Your task to perform on an android device: Check the news Image 0: 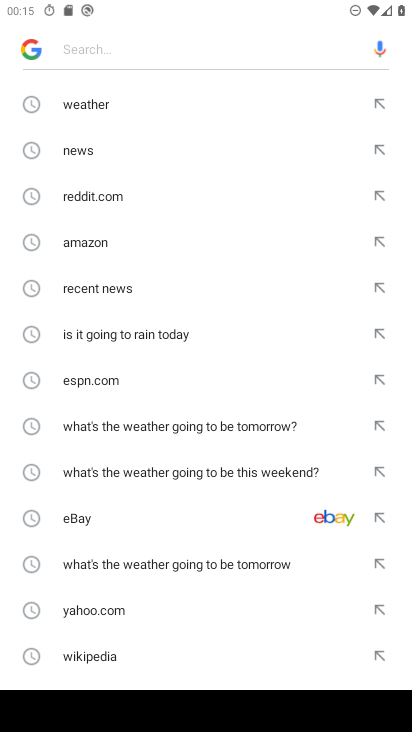
Step 0: click (96, 141)
Your task to perform on an android device: Check the news Image 1: 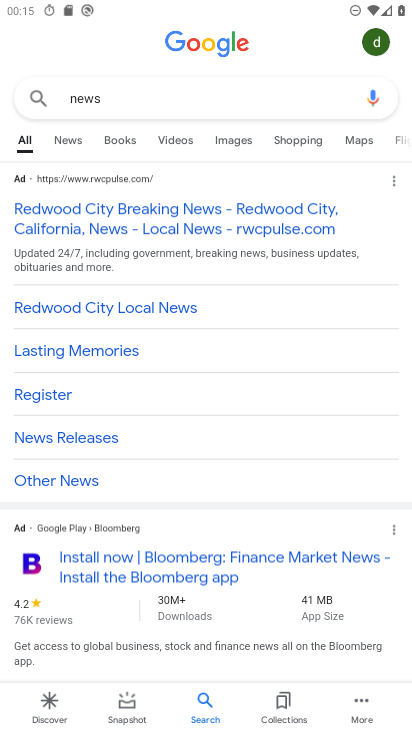
Step 1: click (61, 144)
Your task to perform on an android device: Check the news Image 2: 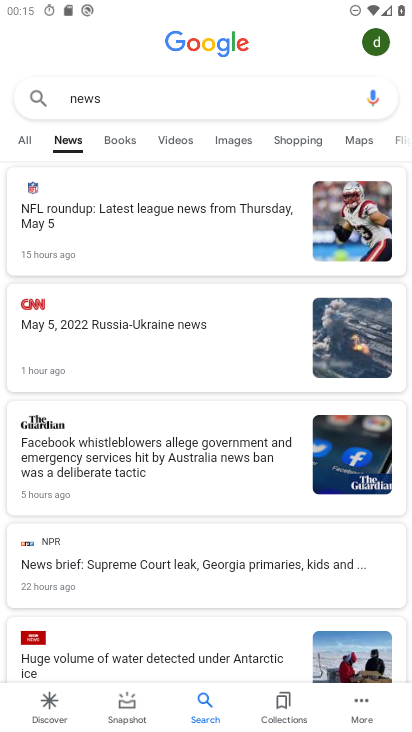
Step 2: task complete